Your task to perform on an android device: Is it going to rain tomorrow? Image 0: 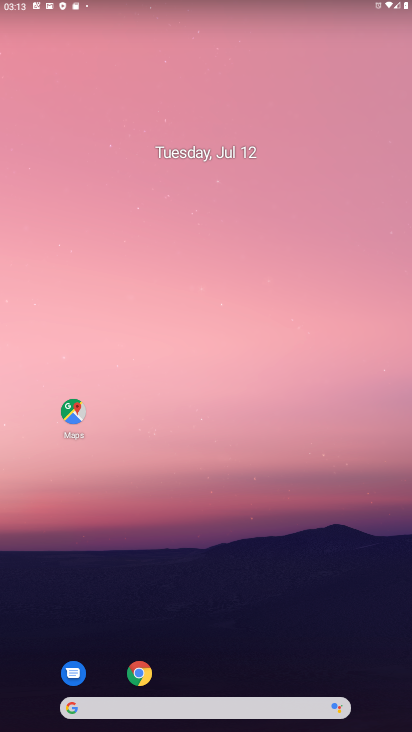
Step 0: click (200, 708)
Your task to perform on an android device: Is it going to rain tomorrow? Image 1: 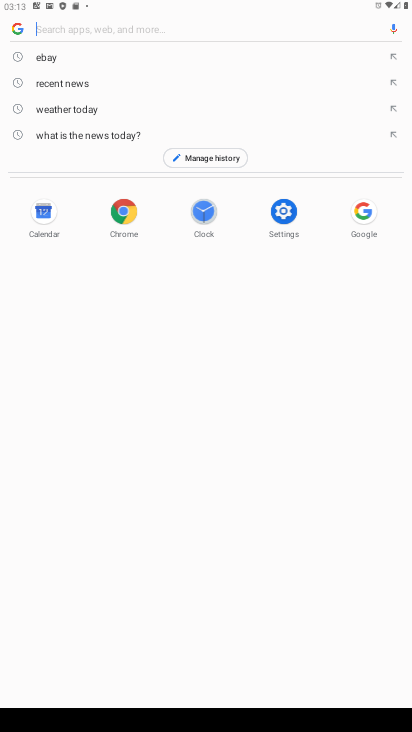
Step 1: type "Is it going to rain tomorrow?"
Your task to perform on an android device: Is it going to rain tomorrow? Image 2: 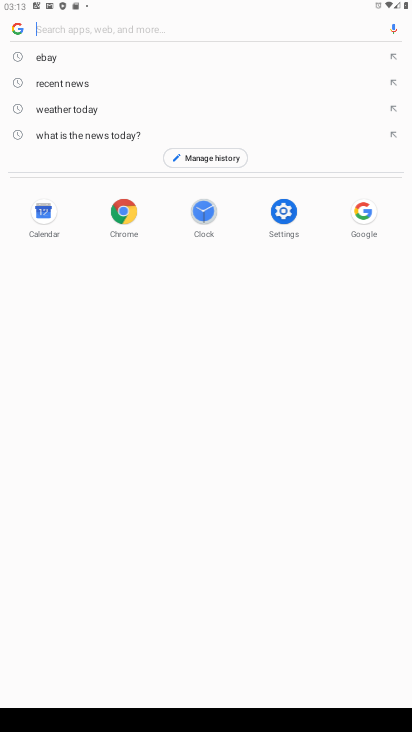
Step 2: click (45, 24)
Your task to perform on an android device: Is it going to rain tomorrow? Image 3: 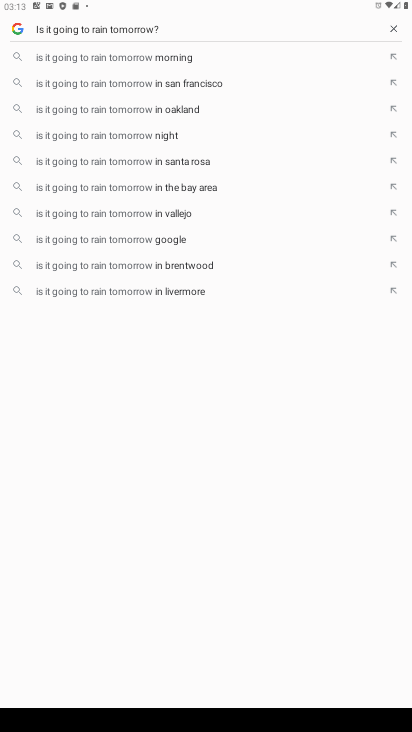
Step 3: press enter
Your task to perform on an android device: Is it going to rain tomorrow? Image 4: 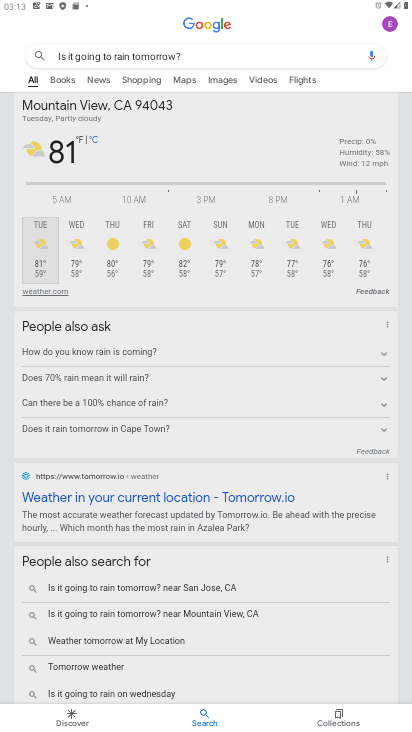
Step 4: task complete